Your task to perform on an android device: delete browsing data in the chrome app Image 0: 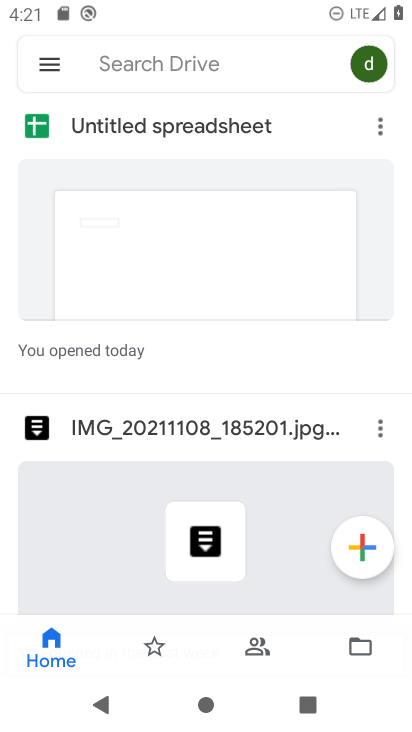
Step 0: press home button
Your task to perform on an android device: delete browsing data in the chrome app Image 1: 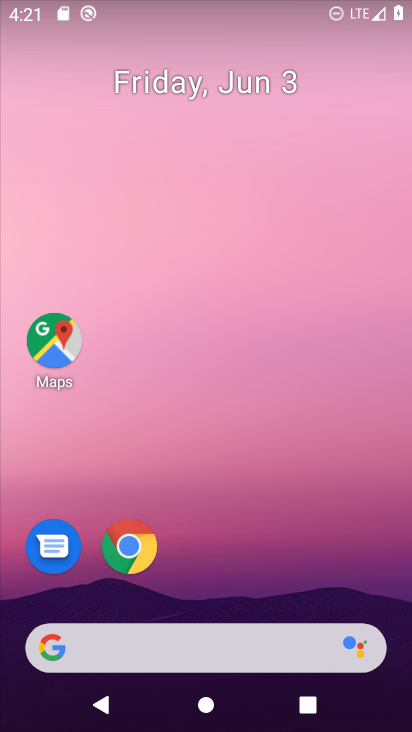
Step 1: drag from (248, 574) to (251, 29)
Your task to perform on an android device: delete browsing data in the chrome app Image 2: 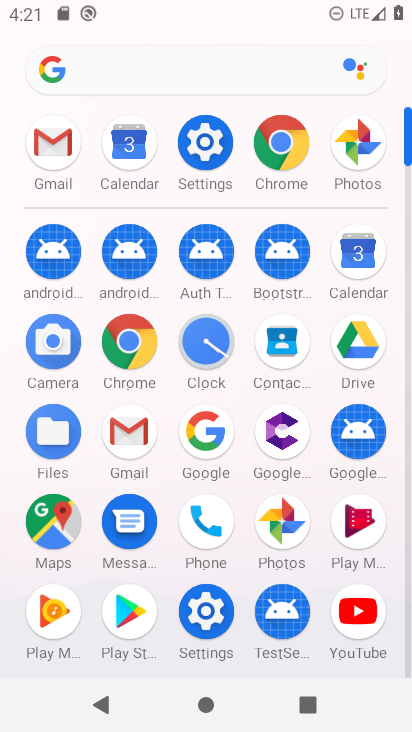
Step 2: click (274, 136)
Your task to perform on an android device: delete browsing data in the chrome app Image 3: 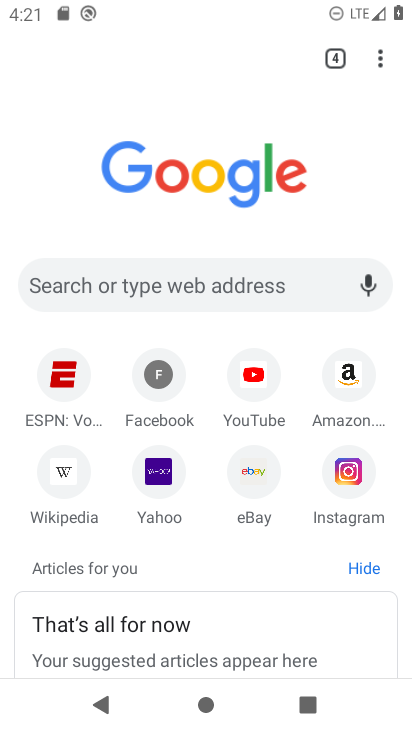
Step 3: click (377, 59)
Your task to perform on an android device: delete browsing data in the chrome app Image 4: 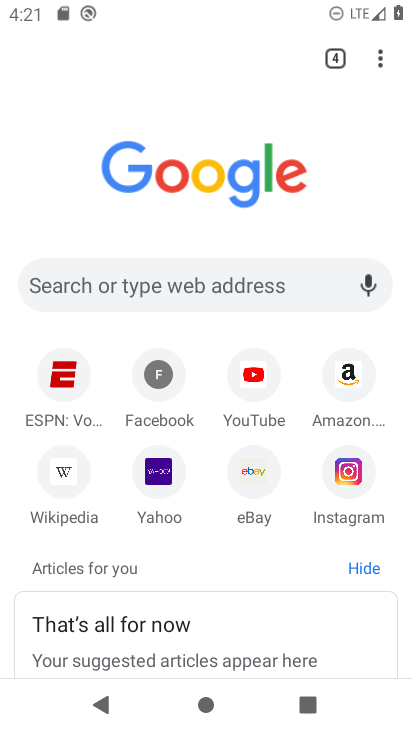
Step 4: click (378, 55)
Your task to perform on an android device: delete browsing data in the chrome app Image 5: 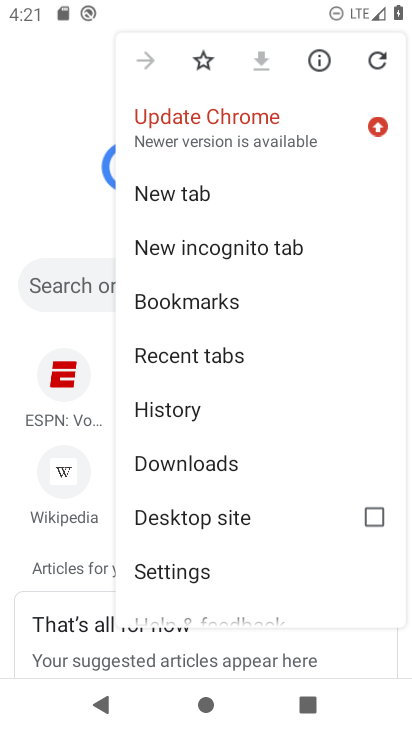
Step 5: click (207, 412)
Your task to perform on an android device: delete browsing data in the chrome app Image 6: 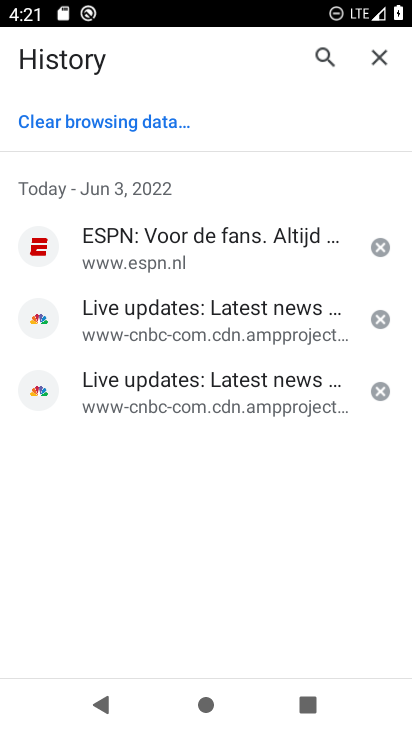
Step 6: click (170, 122)
Your task to perform on an android device: delete browsing data in the chrome app Image 7: 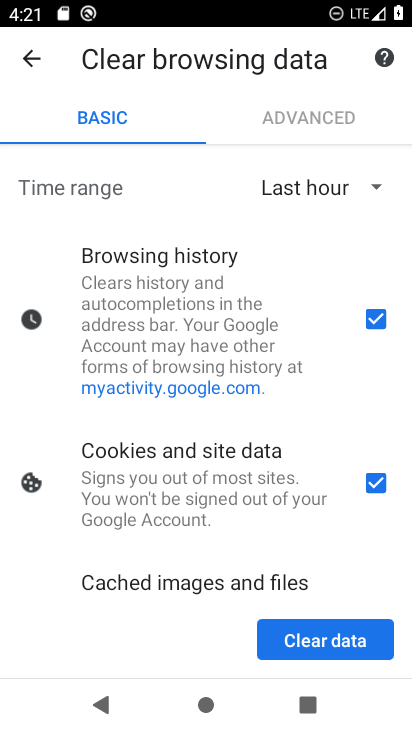
Step 7: click (329, 634)
Your task to perform on an android device: delete browsing data in the chrome app Image 8: 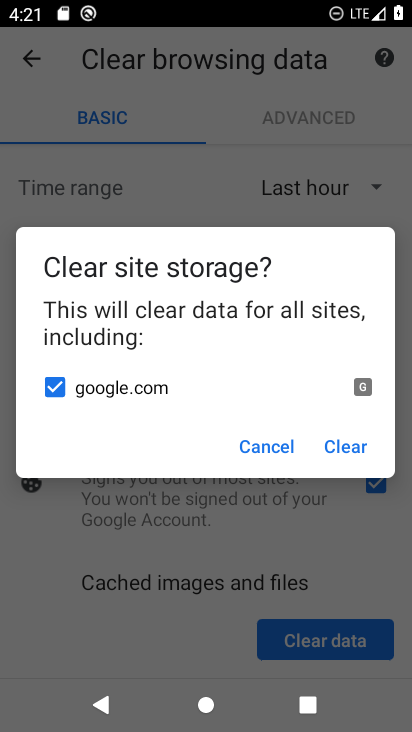
Step 8: click (359, 443)
Your task to perform on an android device: delete browsing data in the chrome app Image 9: 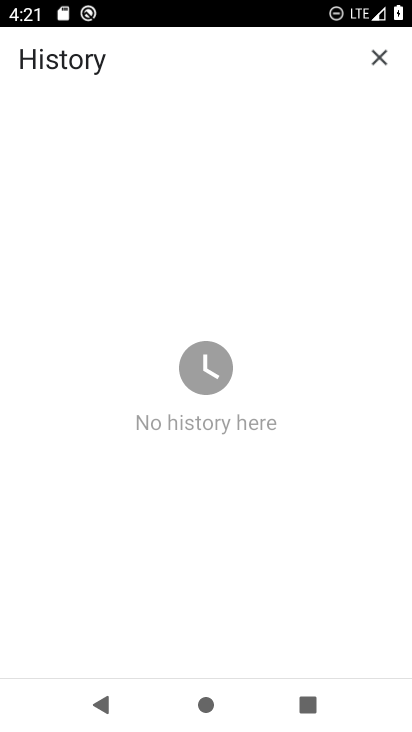
Step 9: task complete